Your task to perform on an android device: Open Google Chrome Image 0: 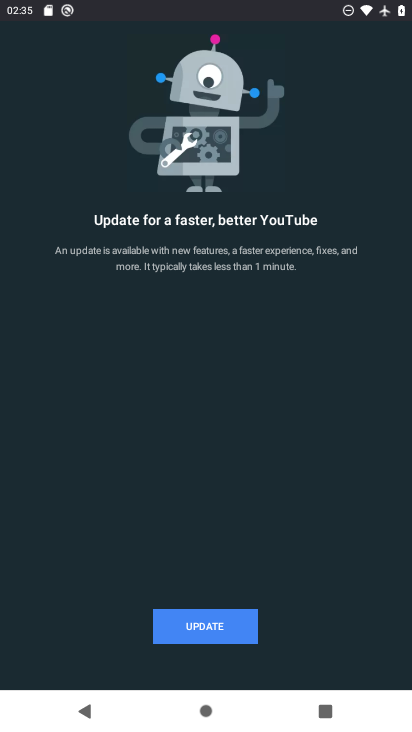
Step 0: press home button
Your task to perform on an android device: Open Google Chrome Image 1: 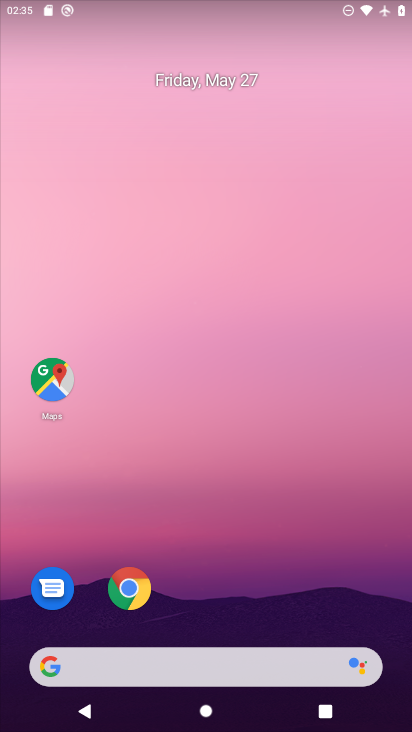
Step 1: click (129, 588)
Your task to perform on an android device: Open Google Chrome Image 2: 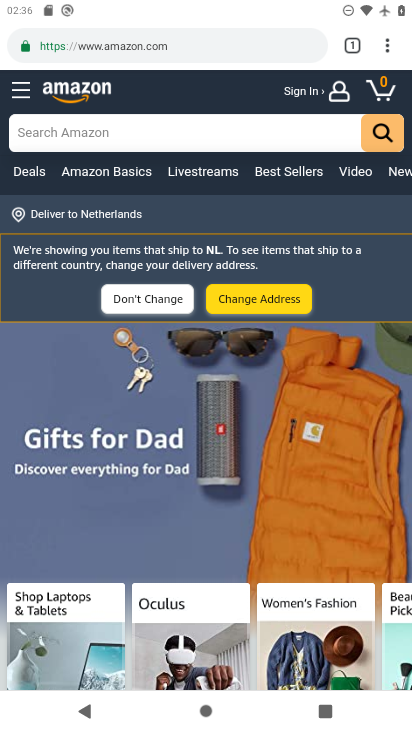
Step 2: task complete